Your task to perform on an android device: toggle priority inbox in the gmail app Image 0: 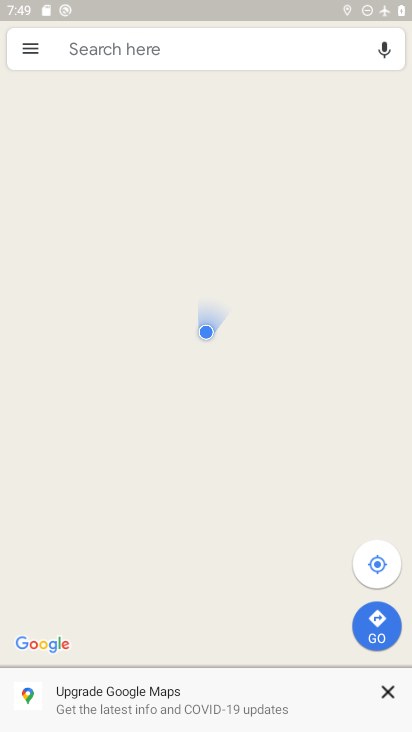
Step 0: press home button
Your task to perform on an android device: toggle priority inbox in the gmail app Image 1: 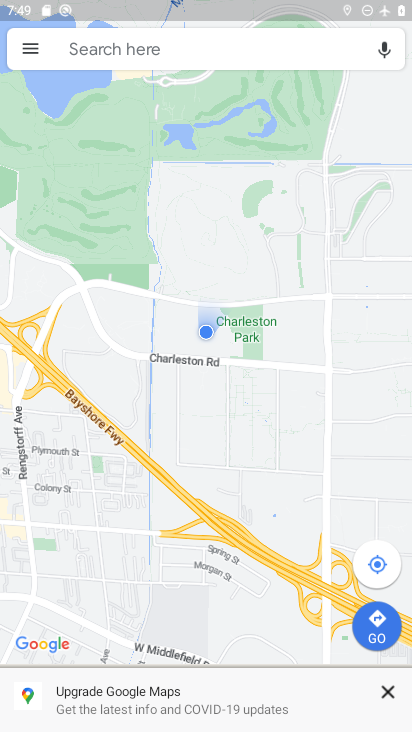
Step 1: drag from (357, 552) to (273, 88)
Your task to perform on an android device: toggle priority inbox in the gmail app Image 2: 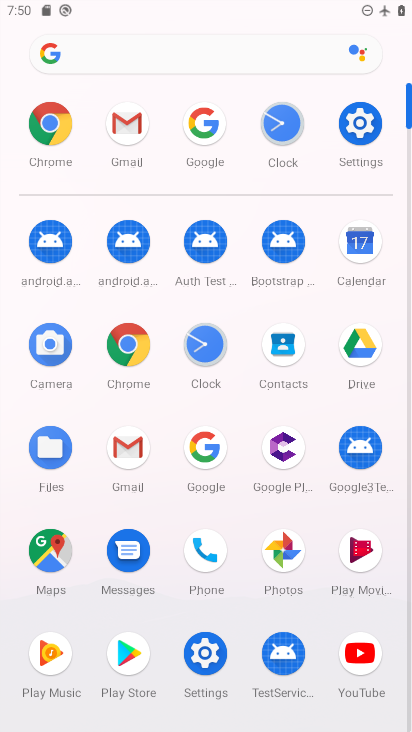
Step 2: click (139, 451)
Your task to perform on an android device: toggle priority inbox in the gmail app Image 3: 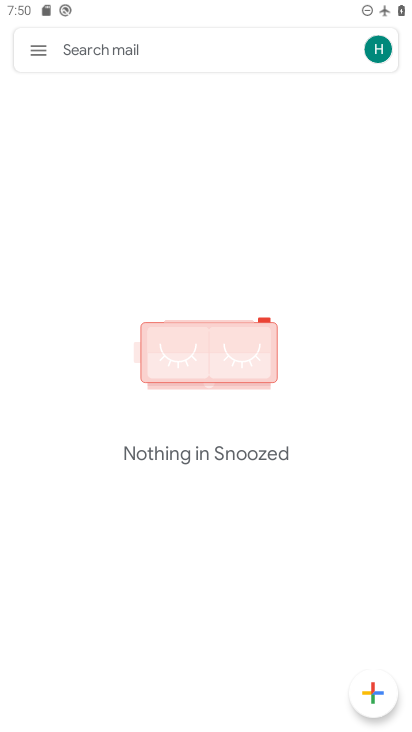
Step 3: click (30, 28)
Your task to perform on an android device: toggle priority inbox in the gmail app Image 4: 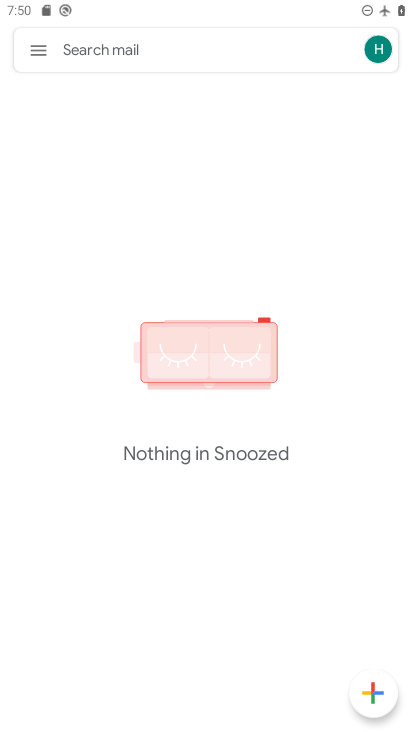
Step 4: click (36, 50)
Your task to perform on an android device: toggle priority inbox in the gmail app Image 5: 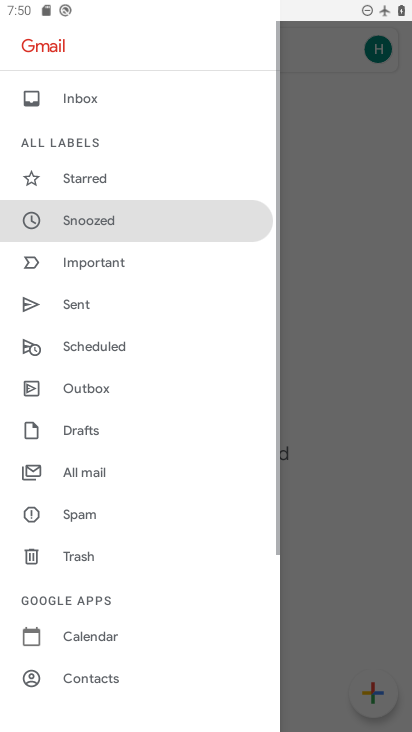
Step 5: drag from (94, 675) to (109, 94)
Your task to perform on an android device: toggle priority inbox in the gmail app Image 6: 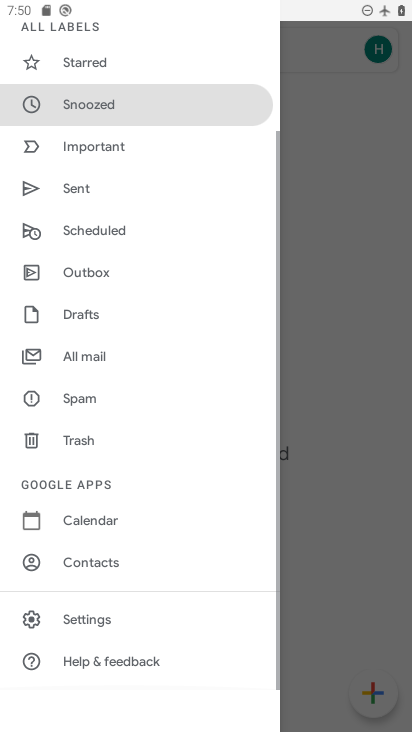
Step 6: click (90, 620)
Your task to perform on an android device: toggle priority inbox in the gmail app Image 7: 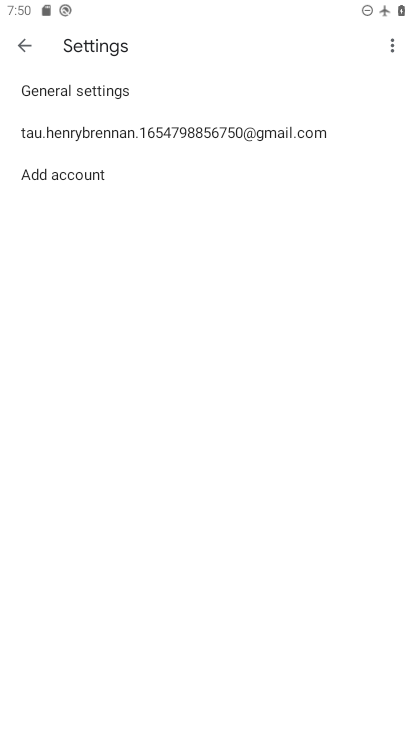
Step 7: click (113, 129)
Your task to perform on an android device: toggle priority inbox in the gmail app Image 8: 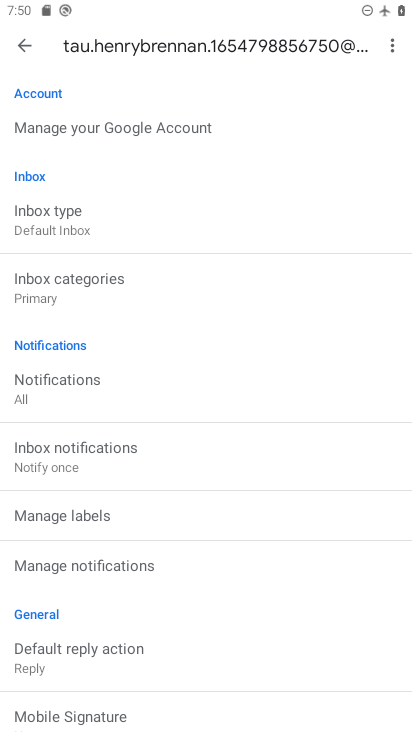
Step 8: click (78, 198)
Your task to perform on an android device: toggle priority inbox in the gmail app Image 9: 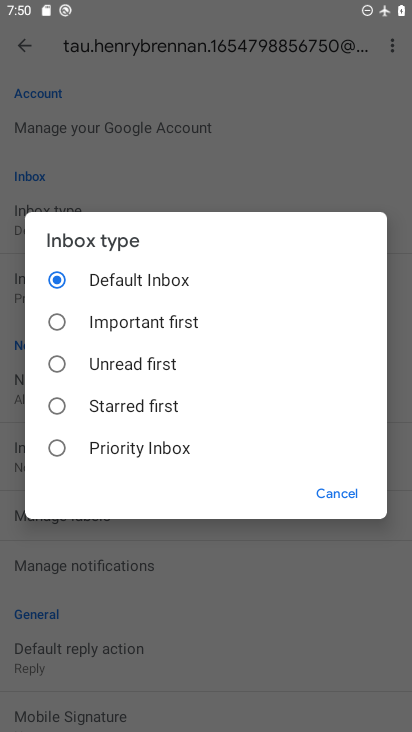
Step 9: click (86, 416)
Your task to perform on an android device: toggle priority inbox in the gmail app Image 10: 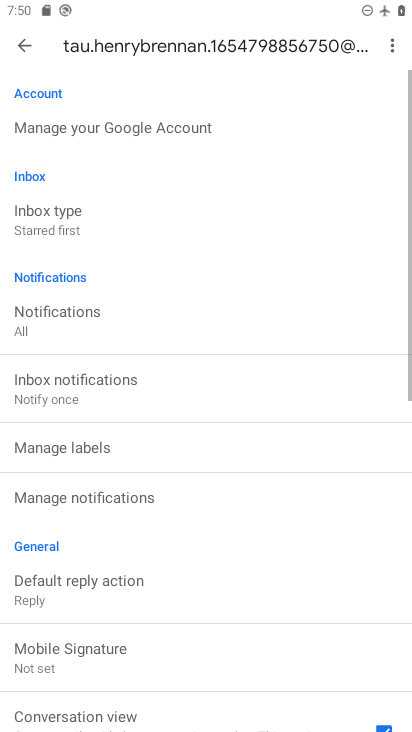
Step 10: task complete